Your task to perform on an android device: Go to notification settings Image 0: 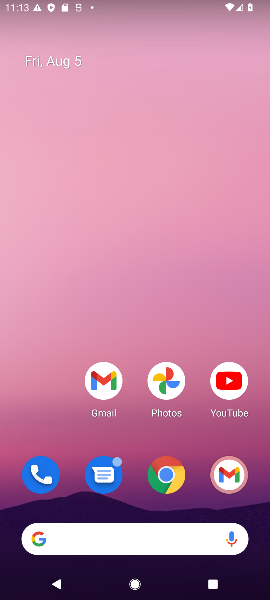
Step 0: drag from (140, 479) to (167, 85)
Your task to perform on an android device: Go to notification settings Image 1: 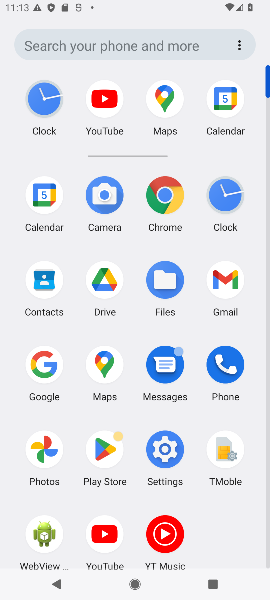
Step 1: click (158, 468)
Your task to perform on an android device: Go to notification settings Image 2: 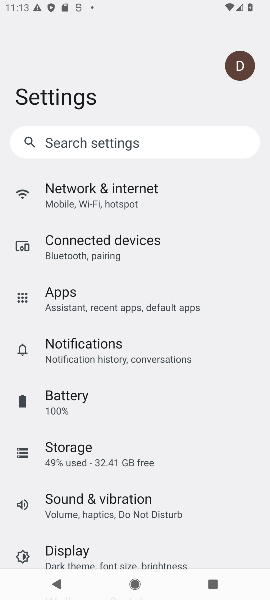
Step 2: click (102, 354)
Your task to perform on an android device: Go to notification settings Image 3: 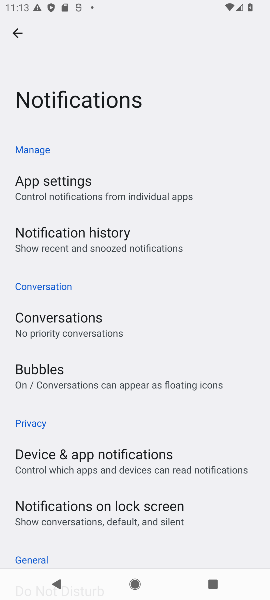
Step 3: task complete